Your task to perform on an android device: Go to sound settings Image 0: 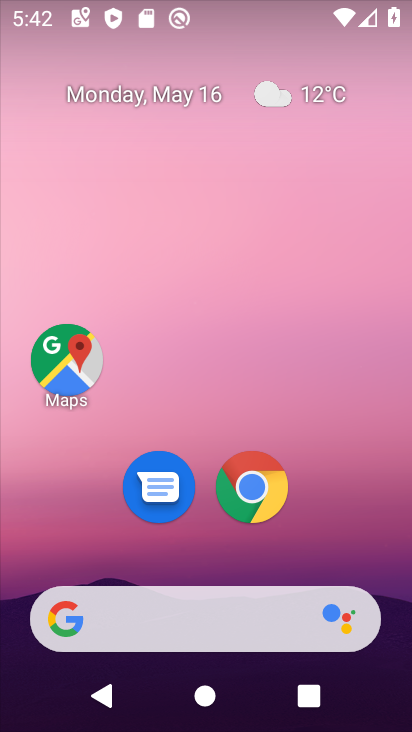
Step 0: drag from (305, 488) to (288, 98)
Your task to perform on an android device: Go to sound settings Image 1: 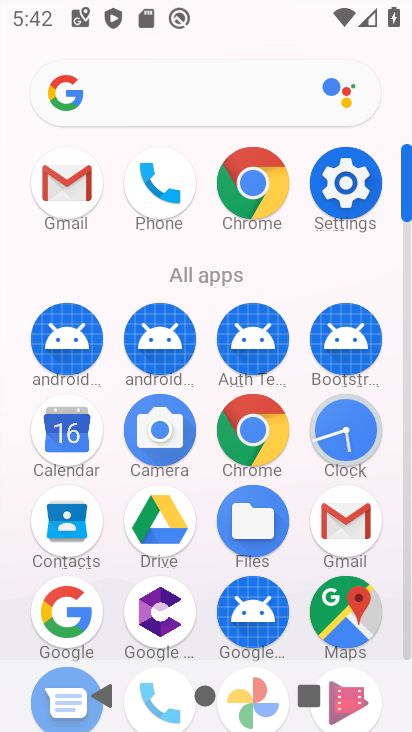
Step 1: click (335, 186)
Your task to perform on an android device: Go to sound settings Image 2: 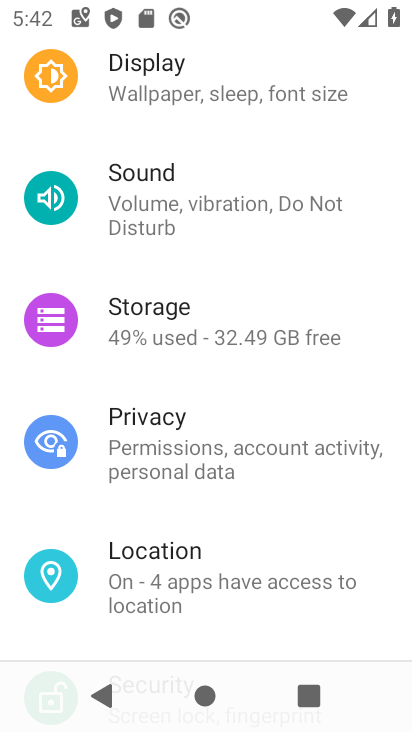
Step 2: click (210, 165)
Your task to perform on an android device: Go to sound settings Image 3: 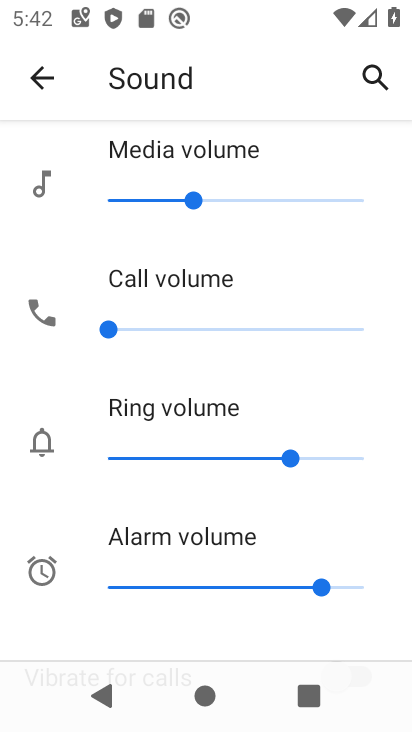
Step 3: task complete